Your task to perform on an android device: Open the stopwatch Image 0: 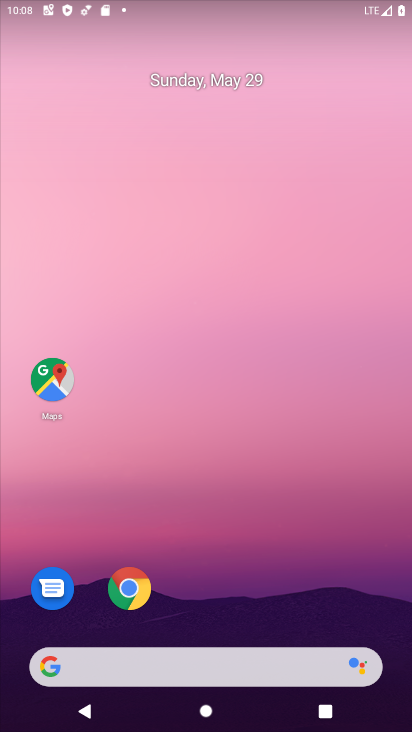
Step 0: drag from (197, 618) to (262, 144)
Your task to perform on an android device: Open the stopwatch Image 1: 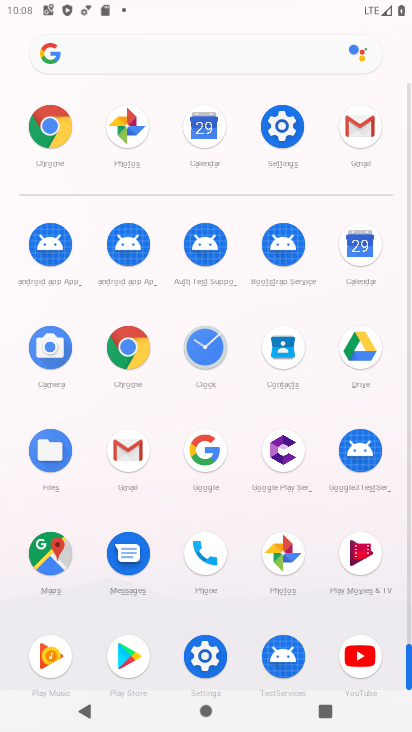
Step 1: click (187, 360)
Your task to perform on an android device: Open the stopwatch Image 2: 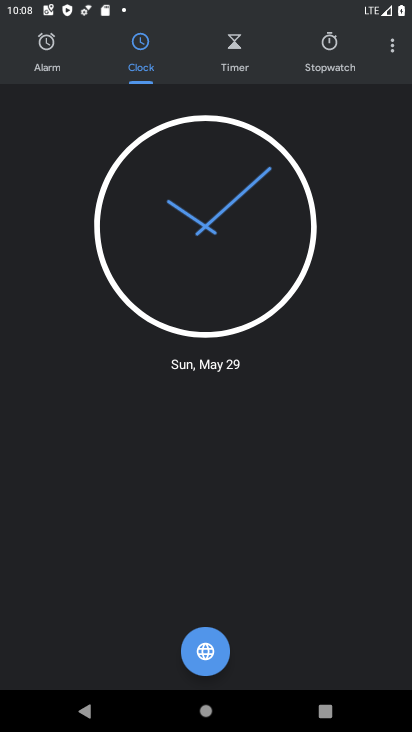
Step 2: click (351, 60)
Your task to perform on an android device: Open the stopwatch Image 3: 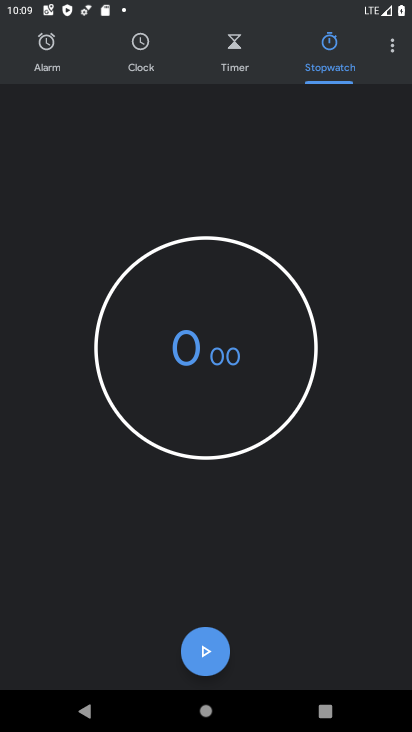
Step 3: click (201, 675)
Your task to perform on an android device: Open the stopwatch Image 4: 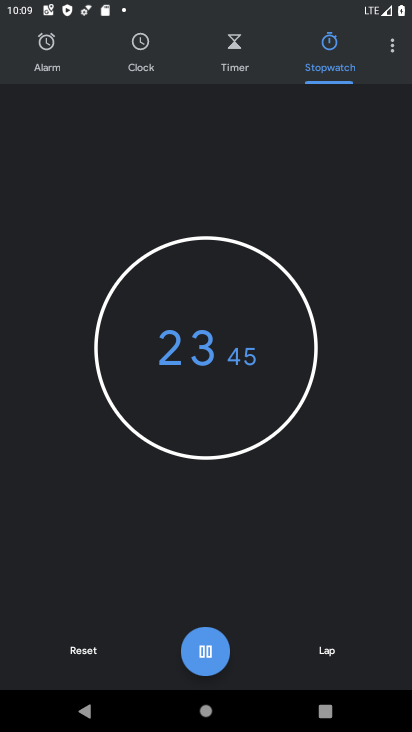
Step 4: task complete